Your task to perform on an android device: Go to Google Image 0: 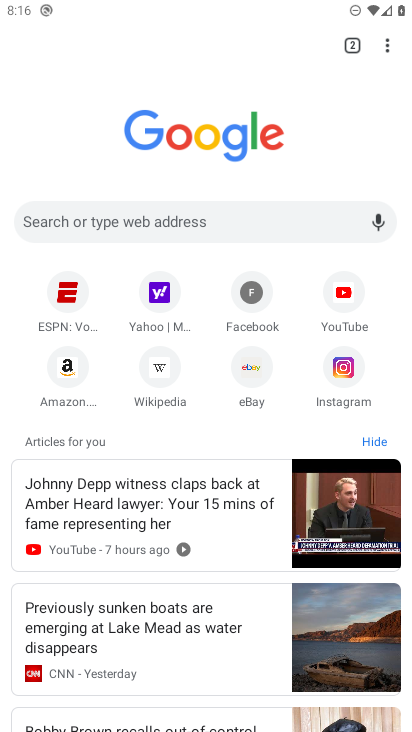
Step 0: press home button
Your task to perform on an android device: Go to Google Image 1: 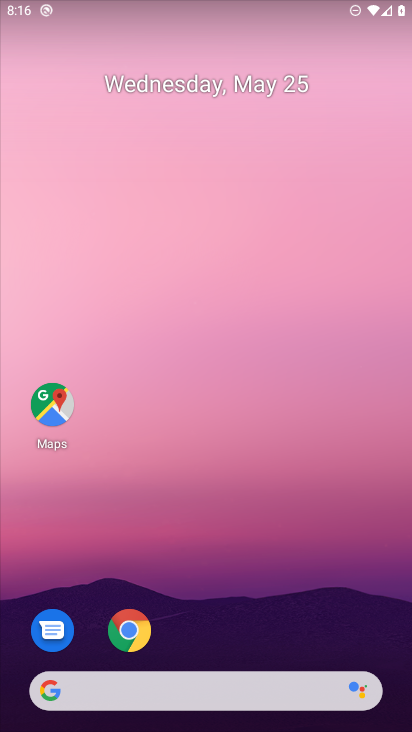
Step 1: drag from (119, 676) to (221, 349)
Your task to perform on an android device: Go to Google Image 2: 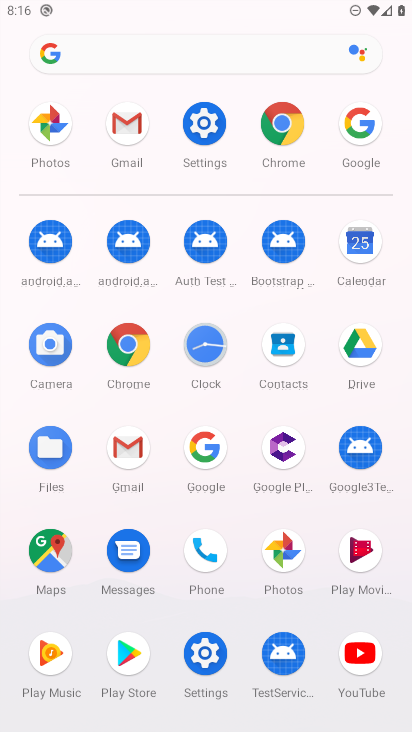
Step 2: click (198, 449)
Your task to perform on an android device: Go to Google Image 3: 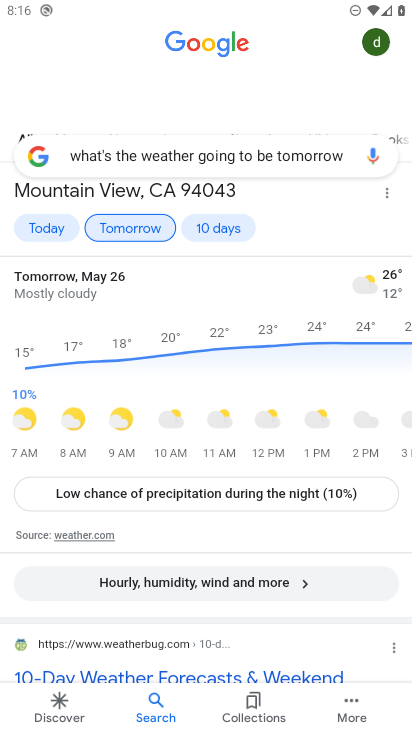
Step 3: task complete